Your task to perform on an android device: turn on wifi Image 0: 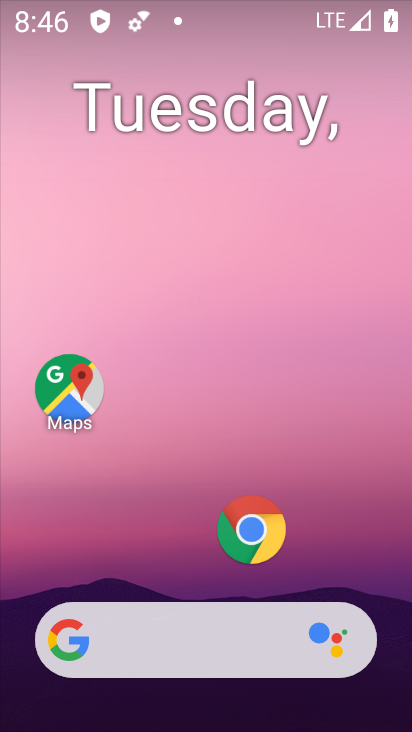
Step 0: drag from (217, 9) to (222, 518)
Your task to perform on an android device: turn on wifi Image 1: 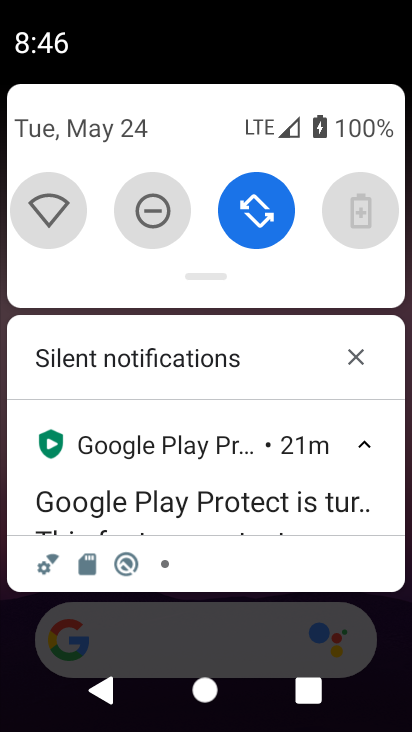
Step 1: click (44, 212)
Your task to perform on an android device: turn on wifi Image 2: 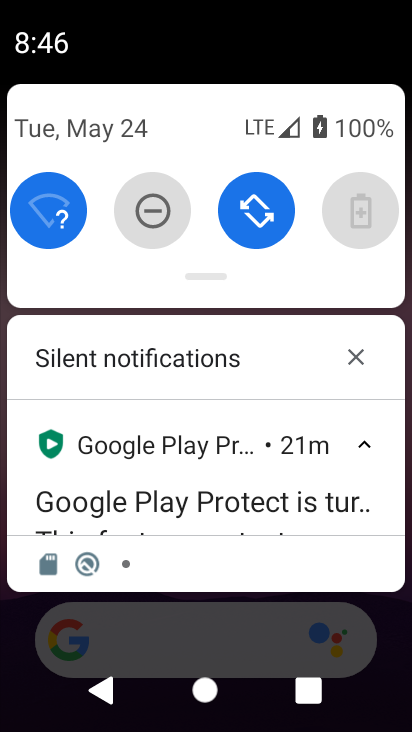
Step 2: task complete